Your task to perform on an android device: allow notifications from all sites in the chrome app Image 0: 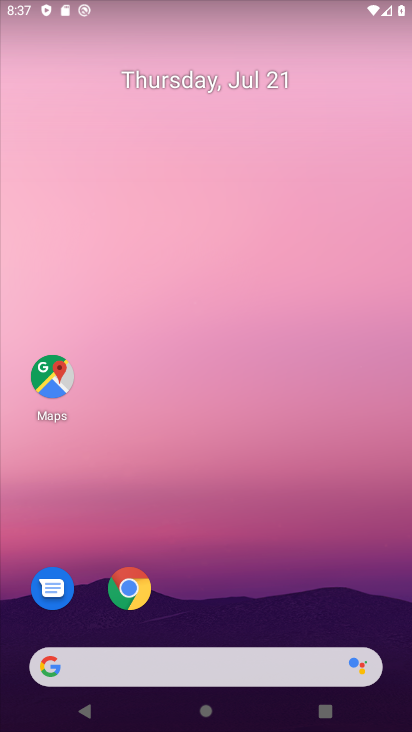
Step 0: drag from (229, 662) to (405, 219)
Your task to perform on an android device: allow notifications from all sites in the chrome app Image 1: 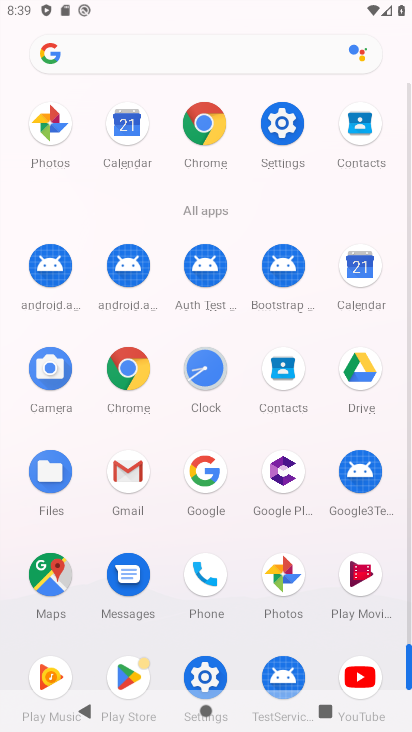
Step 1: click (200, 116)
Your task to perform on an android device: allow notifications from all sites in the chrome app Image 2: 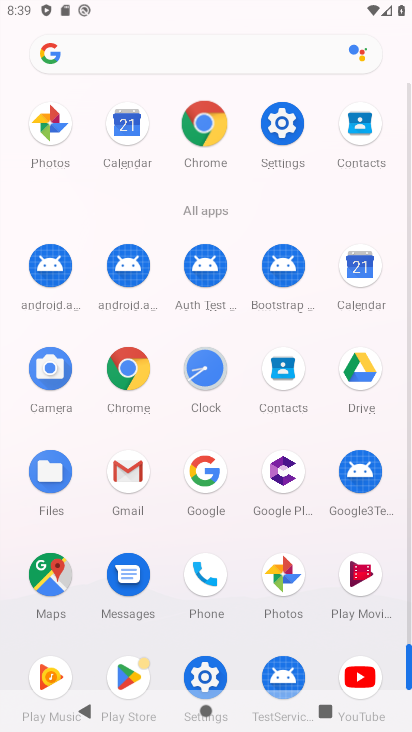
Step 2: click (203, 115)
Your task to perform on an android device: allow notifications from all sites in the chrome app Image 3: 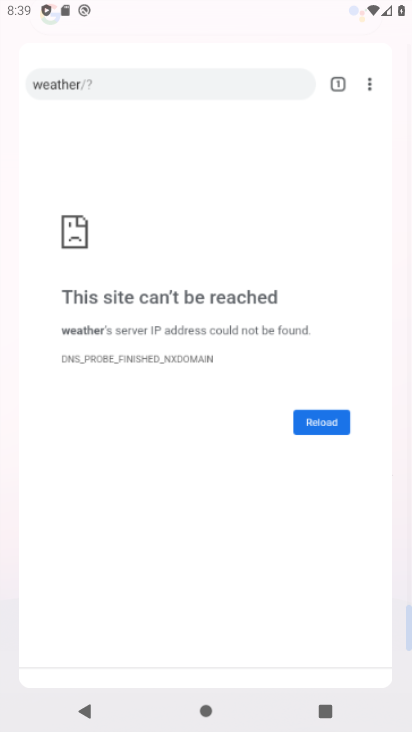
Step 3: click (209, 119)
Your task to perform on an android device: allow notifications from all sites in the chrome app Image 4: 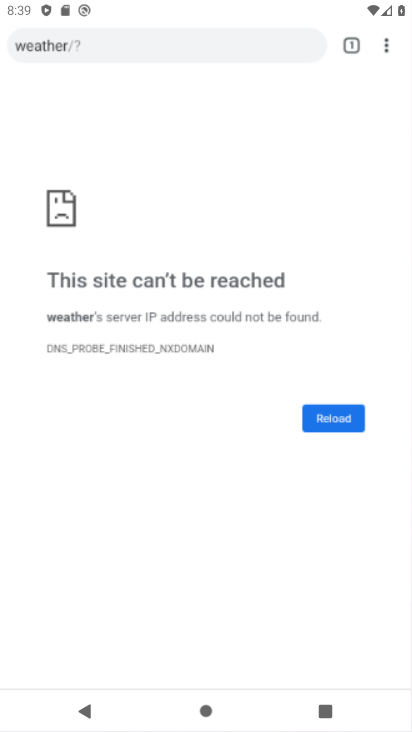
Step 4: click (210, 120)
Your task to perform on an android device: allow notifications from all sites in the chrome app Image 5: 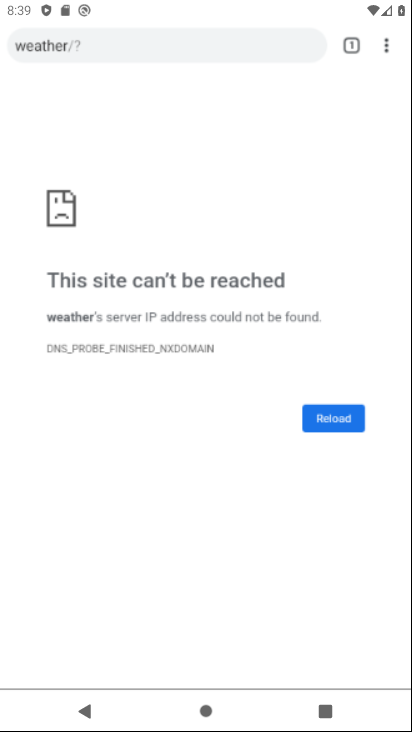
Step 5: click (220, 124)
Your task to perform on an android device: allow notifications from all sites in the chrome app Image 6: 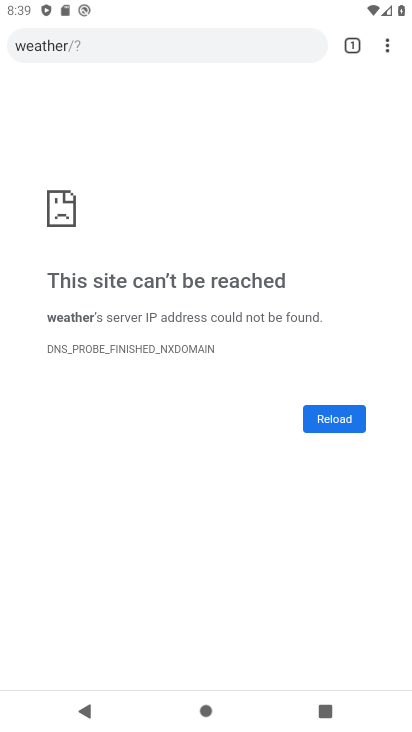
Step 6: drag from (382, 42) to (216, 507)
Your task to perform on an android device: allow notifications from all sites in the chrome app Image 7: 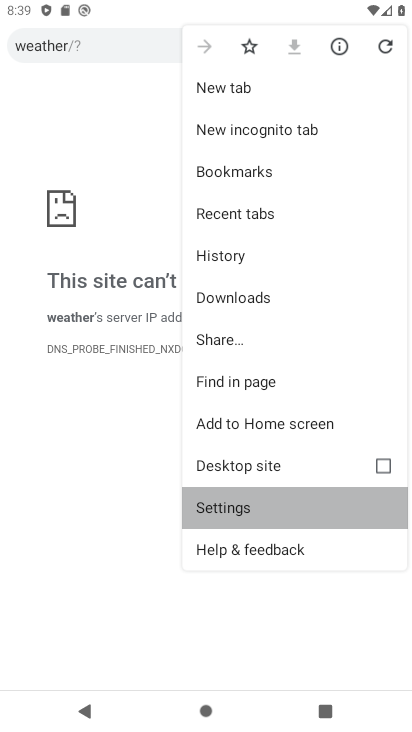
Step 7: click (218, 503)
Your task to perform on an android device: allow notifications from all sites in the chrome app Image 8: 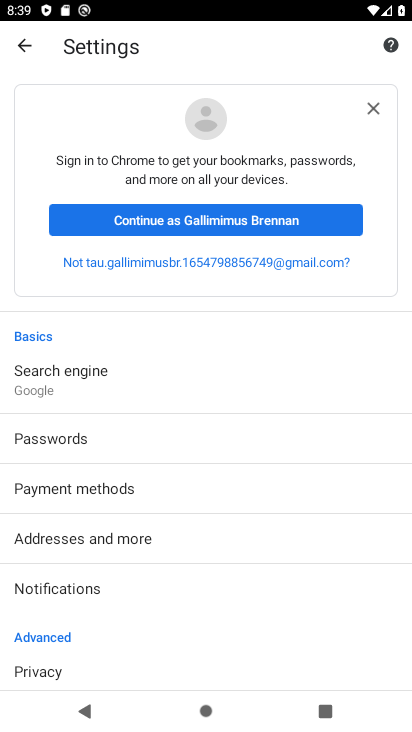
Step 8: click (375, 109)
Your task to perform on an android device: allow notifications from all sites in the chrome app Image 9: 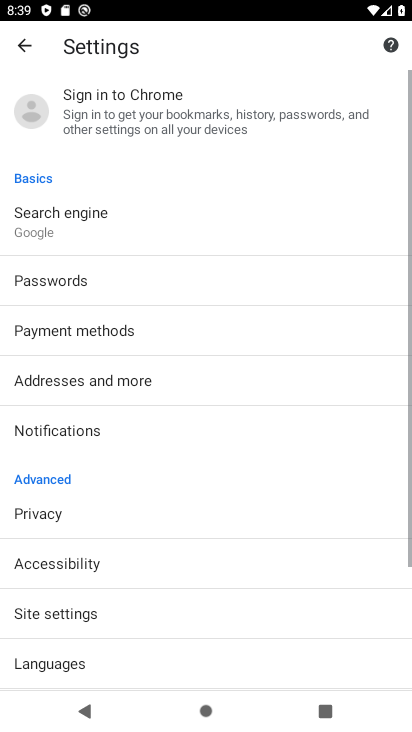
Step 9: drag from (103, 576) to (143, 256)
Your task to perform on an android device: allow notifications from all sites in the chrome app Image 10: 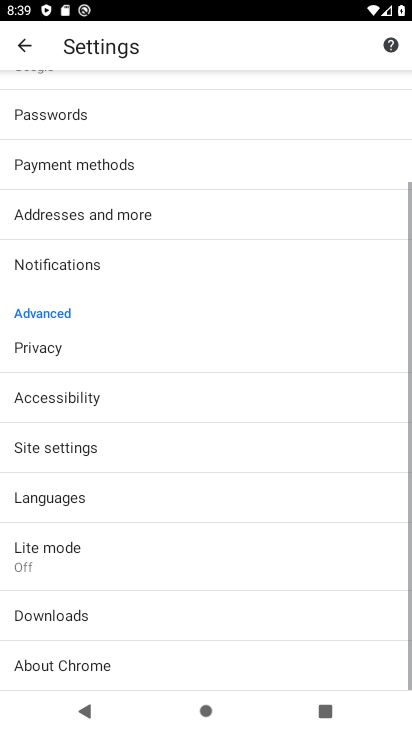
Step 10: click (41, 443)
Your task to perform on an android device: allow notifications from all sites in the chrome app Image 11: 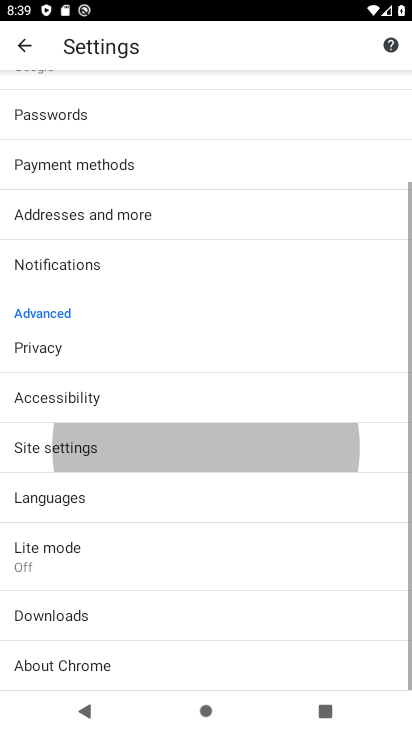
Step 11: click (41, 443)
Your task to perform on an android device: allow notifications from all sites in the chrome app Image 12: 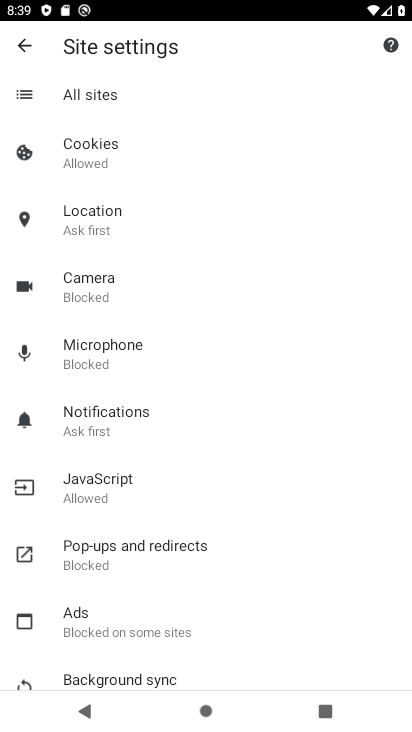
Step 12: click (88, 96)
Your task to perform on an android device: allow notifications from all sites in the chrome app Image 13: 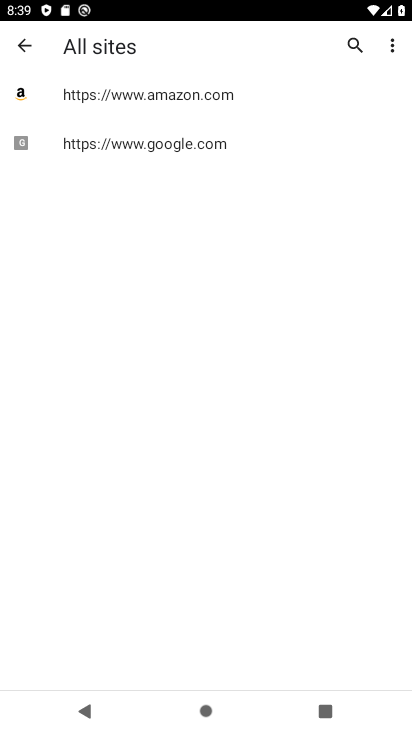
Step 13: click (207, 90)
Your task to perform on an android device: allow notifications from all sites in the chrome app Image 14: 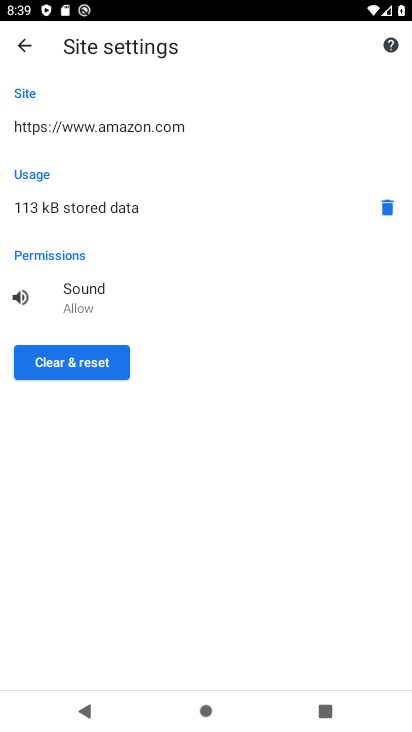
Step 14: task complete